Your task to perform on an android device: Check the news Image 0: 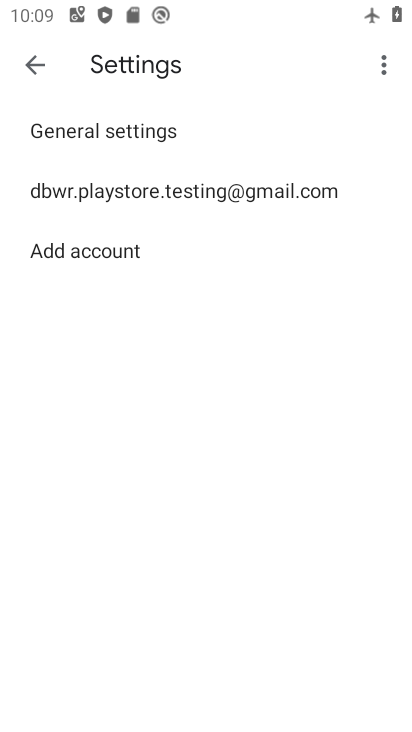
Step 0: press back button
Your task to perform on an android device: Check the news Image 1: 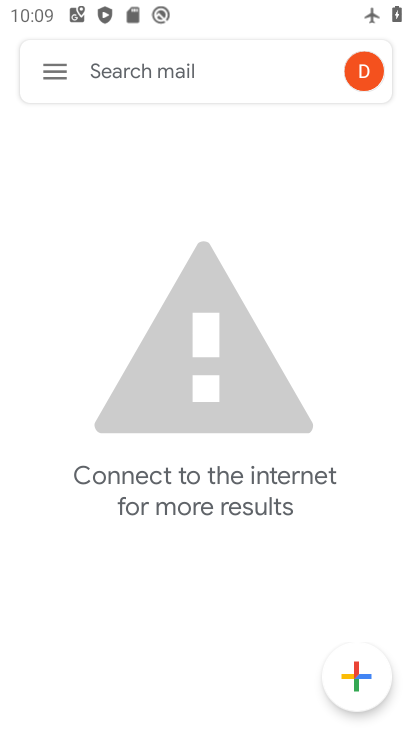
Step 1: press back button
Your task to perform on an android device: Check the news Image 2: 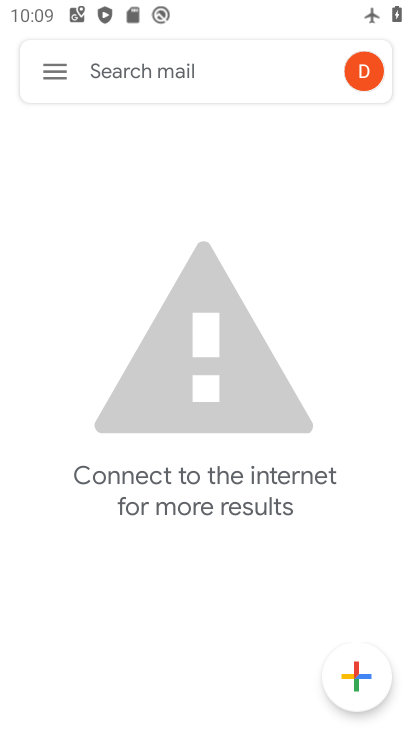
Step 2: press home button
Your task to perform on an android device: Check the news Image 3: 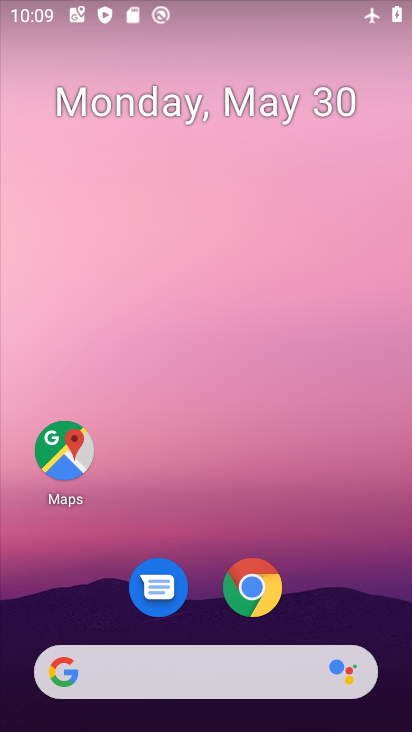
Step 3: drag from (339, 539) to (278, 34)
Your task to perform on an android device: Check the news Image 4: 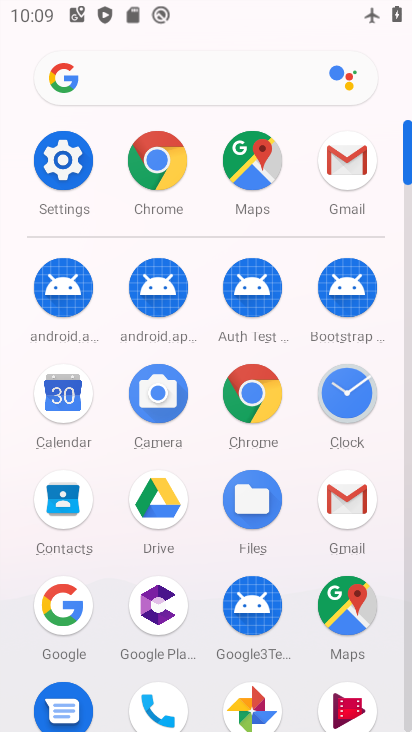
Step 4: click (161, 161)
Your task to perform on an android device: Check the news Image 5: 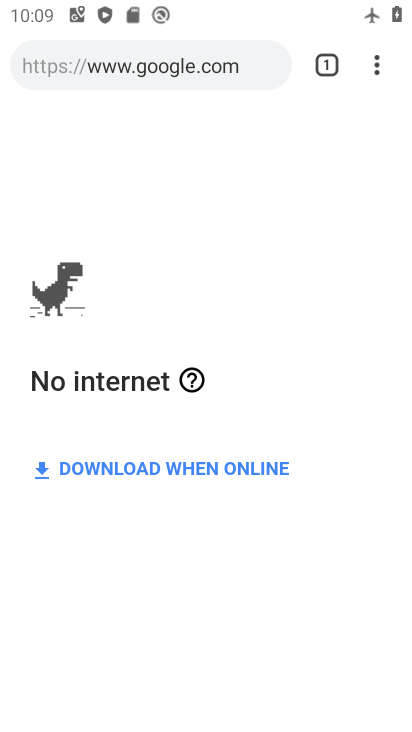
Step 5: click (165, 60)
Your task to perform on an android device: Check the news Image 6: 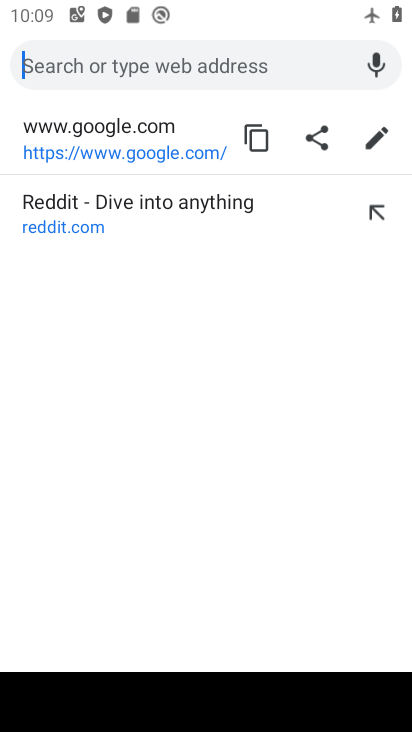
Step 6: drag from (291, 11) to (291, 323)
Your task to perform on an android device: Check the news Image 7: 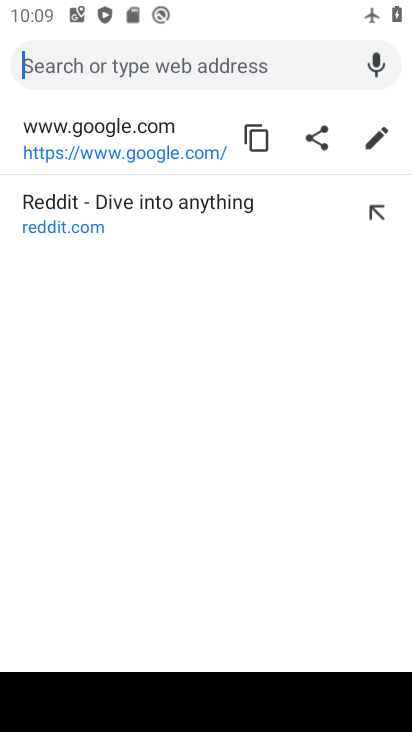
Step 7: drag from (264, 7) to (254, 499)
Your task to perform on an android device: Check the news Image 8: 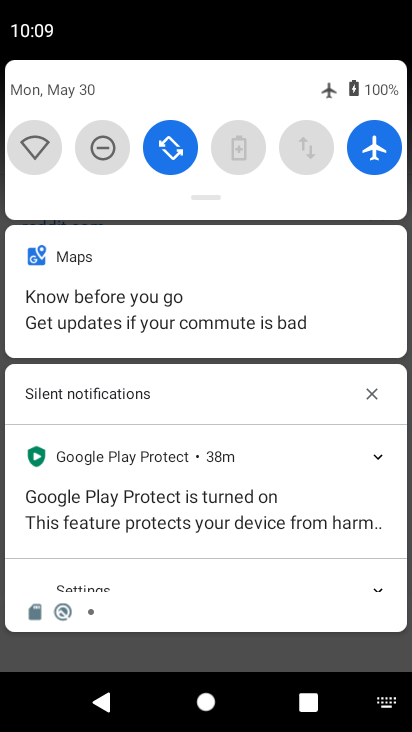
Step 8: click (27, 131)
Your task to perform on an android device: Check the news Image 9: 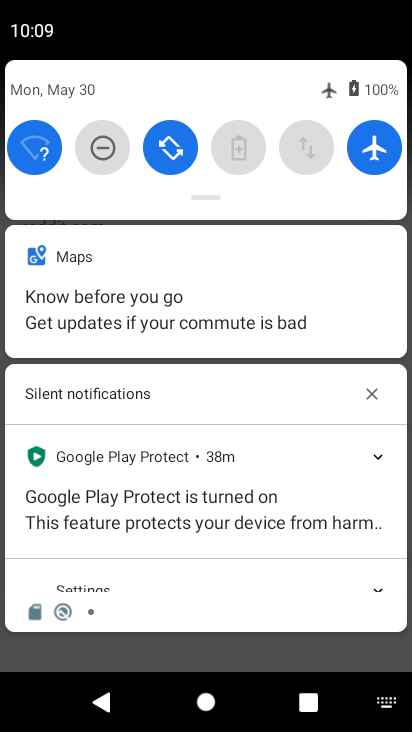
Step 9: drag from (84, 649) to (148, 219)
Your task to perform on an android device: Check the news Image 10: 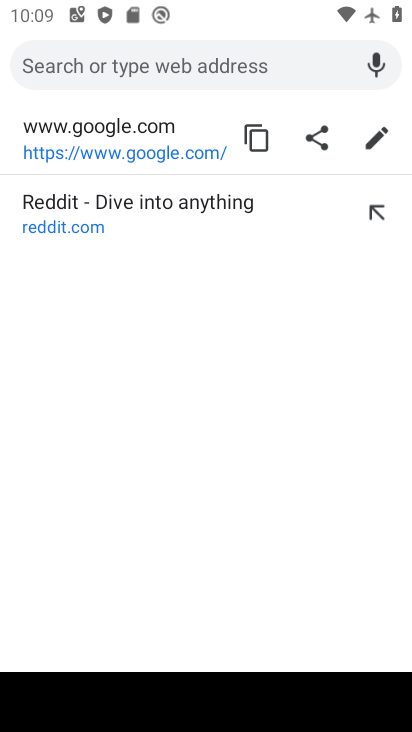
Step 10: type "Check the news"
Your task to perform on an android device: Check the news Image 11: 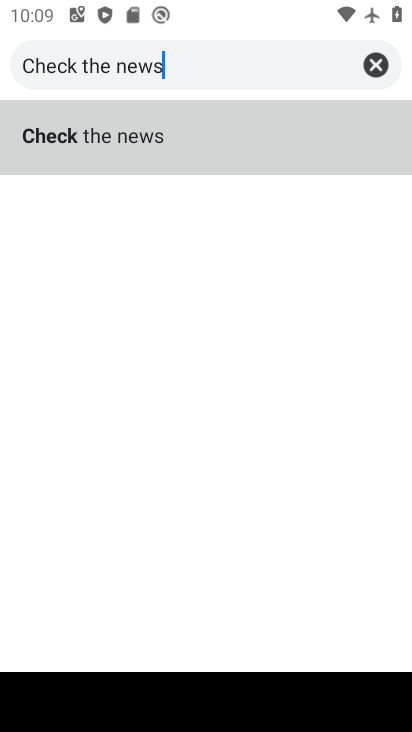
Step 11: type ""
Your task to perform on an android device: Check the news Image 12: 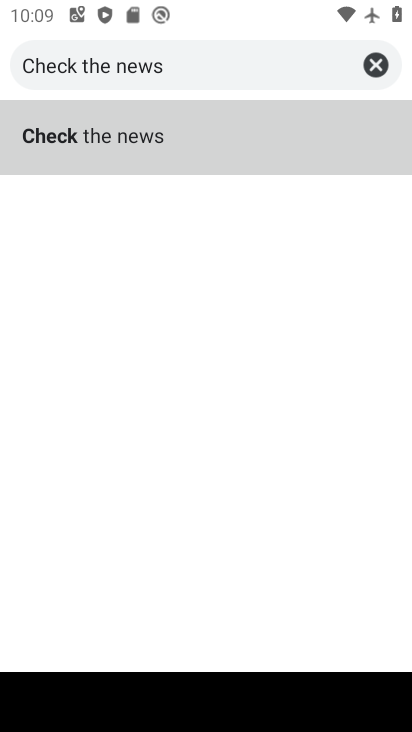
Step 12: click (99, 160)
Your task to perform on an android device: Check the news Image 13: 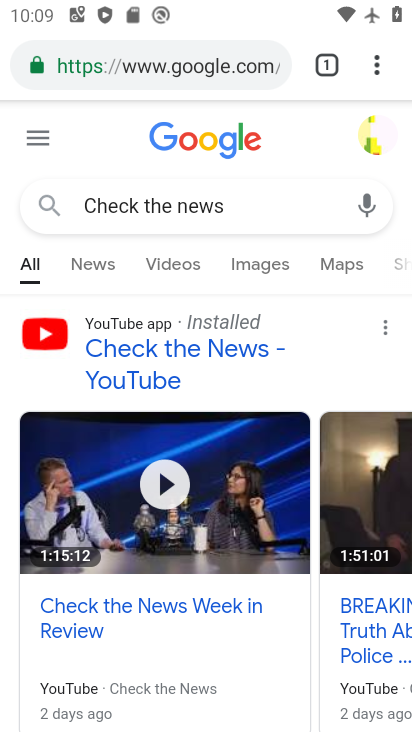
Step 13: drag from (248, 465) to (244, 169)
Your task to perform on an android device: Check the news Image 14: 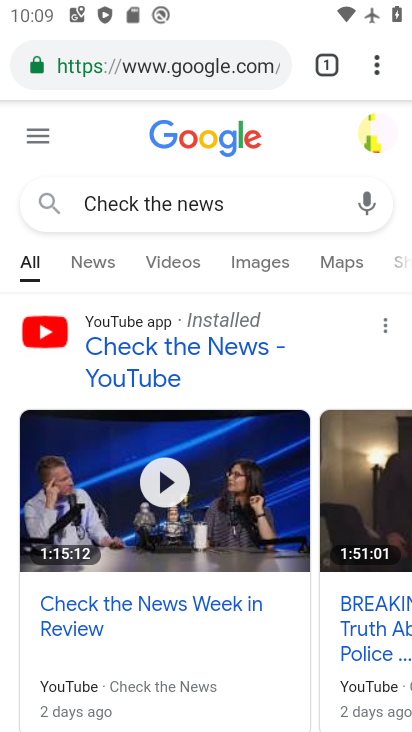
Step 14: click (104, 259)
Your task to perform on an android device: Check the news Image 15: 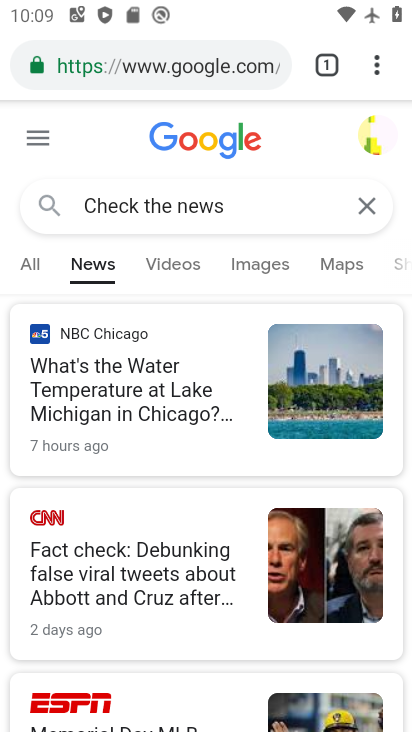
Step 15: task complete